Your task to perform on an android device: Open Wikipedia Image 0: 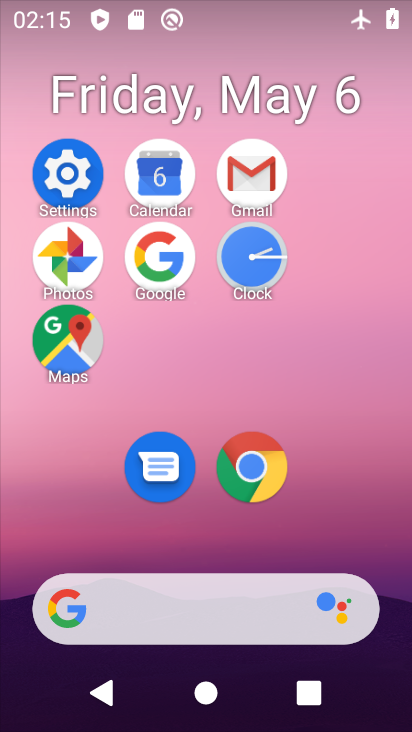
Step 0: click (275, 462)
Your task to perform on an android device: Open Wikipedia Image 1: 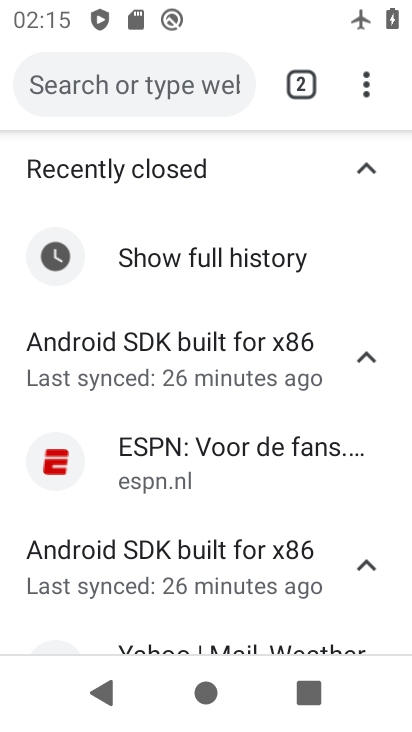
Step 1: click (304, 80)
Your task to perform on an android device: Open Wikipedia Image 2: 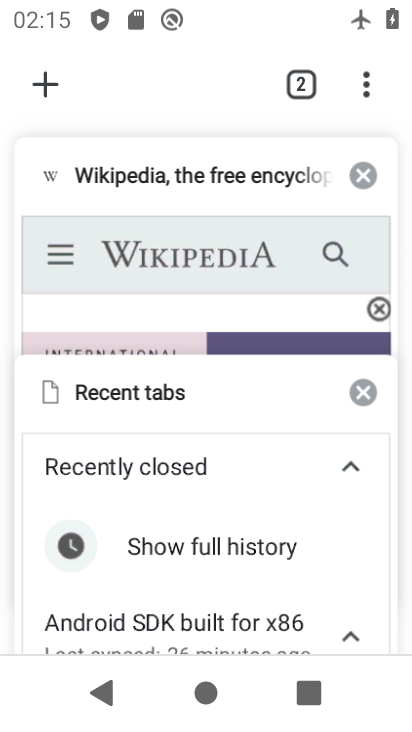
Step 2: click (52, 87)
Your task to perform on an android device: Open Wikipedia Image 3: 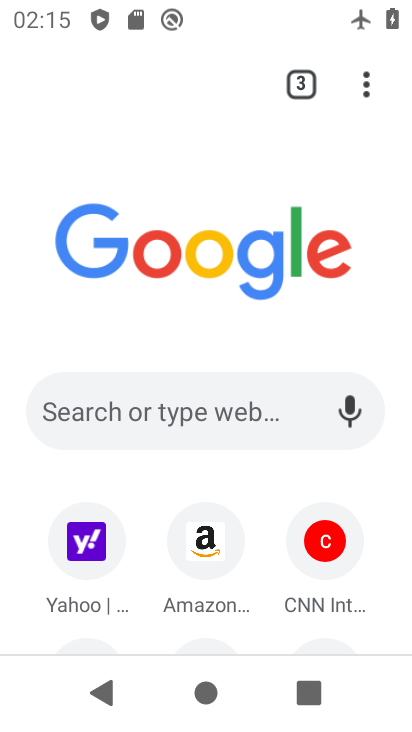
Step 3: drag from (253, 550) to (256, 249)
Your task to perform on an android device: Open Wikipedia Image 4: 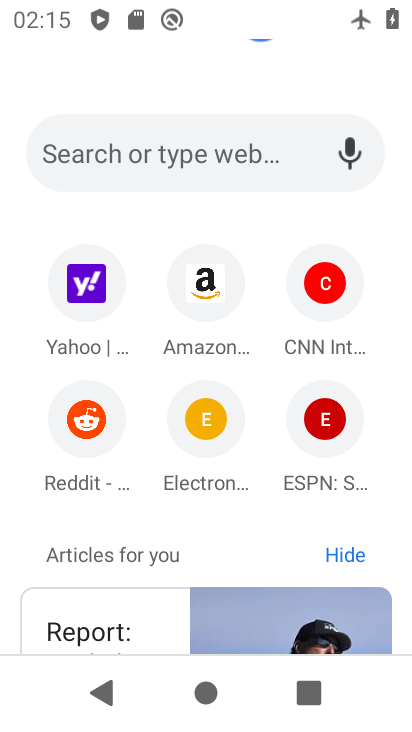
Step 4: click (231, 151)
Your task to perform on an android device: Open Wikipedia Image 5: 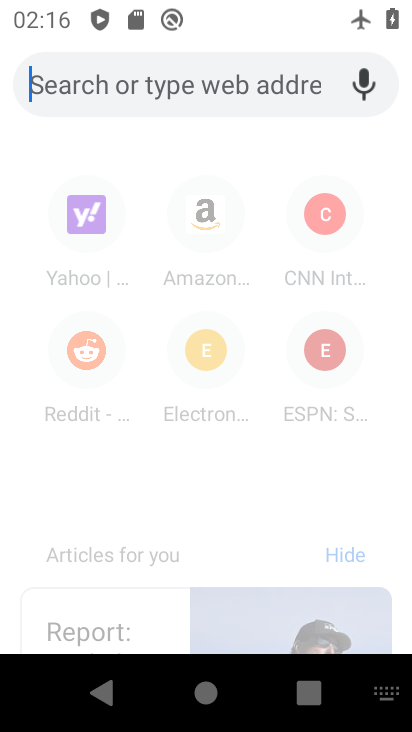
Step 5: type "wikipedia"
Your task to perform on an android device: Open Wikipedia Image 6: 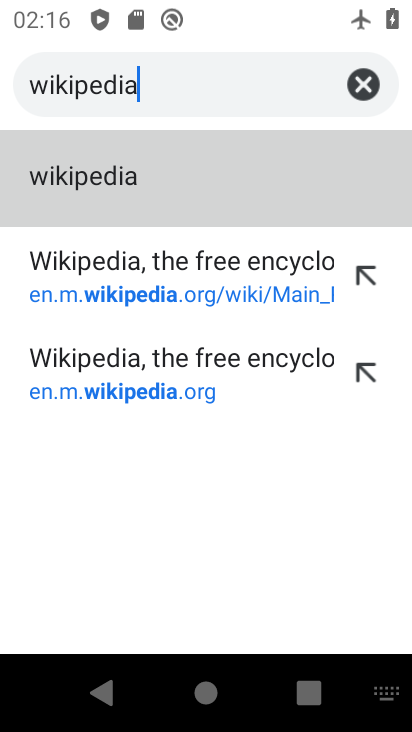
Step 6: click (104, 265)
Your task to perform on an android device: Open Wikipedia Image 7: 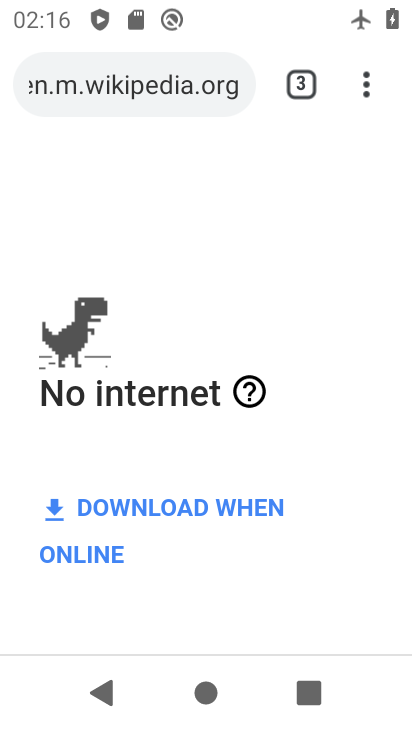
Step 7: task complete